Your task to perform on an android device: Search for pizza restaurants on Maps Image 0: 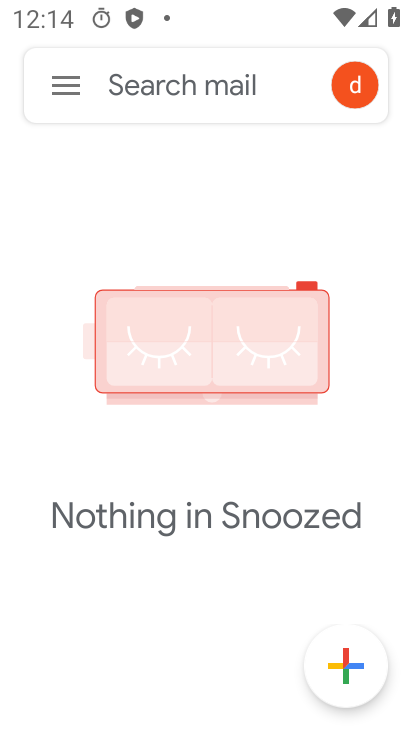
Step 0: press home button
Your task to perform on an android device: Search for pizza restaurants on Maps Image 1: 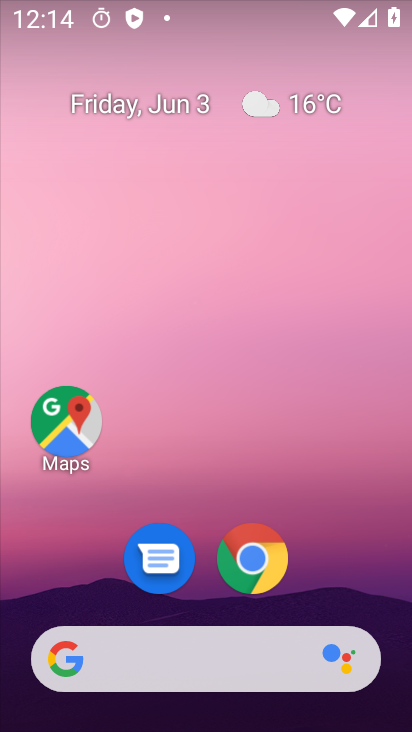
Step 1: drag from (364, 565) to (350, 260)
Your task to perform on an android device: Search for pizza restaurants on Maps Image 2: 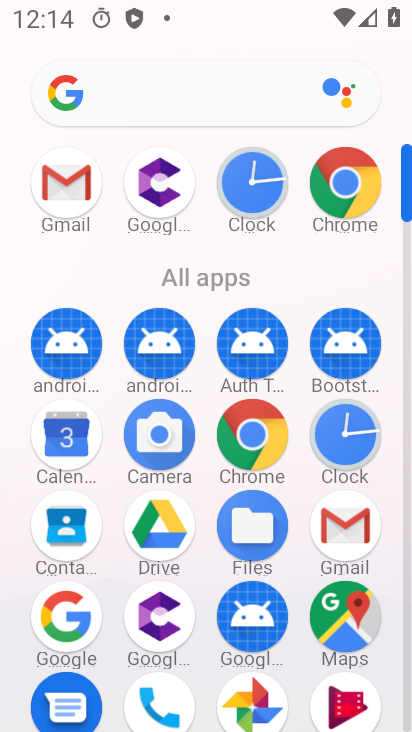
Step 2: click (354, 613)
Your task to perform on an android device: Search for pizza restaurants on Maps Image 3: 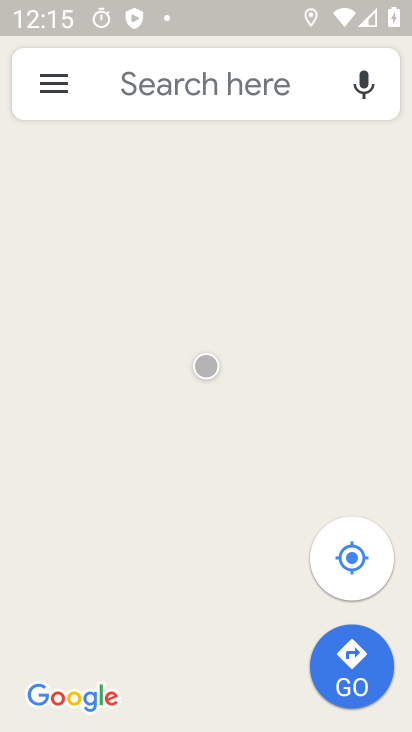
Step 3: click (255, 77)
Your task to perform on an android device: Search for pizza restaurants on Maps Image 4: 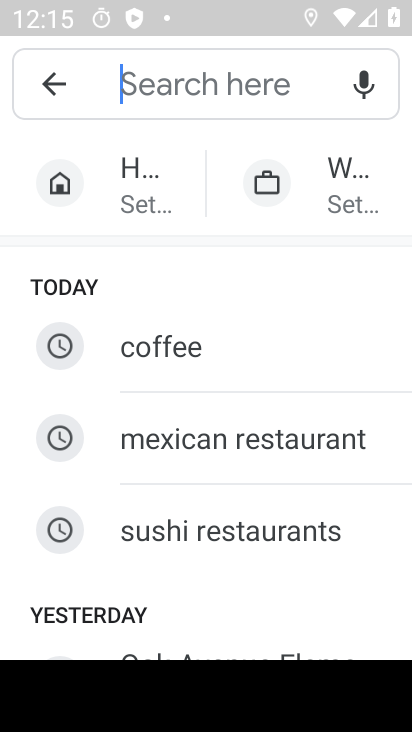
Step 4: type "pizzaa restautants"
Your task to perform on an android device: Search for pizza restaurants on Maps Image 5: 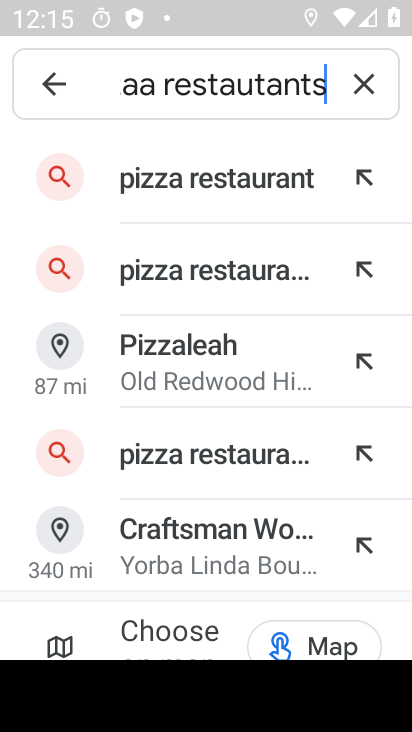
Step 5: click (318, 203)
Your task to perform on an android device: Search for pizza restaurants on Maps Image 6: 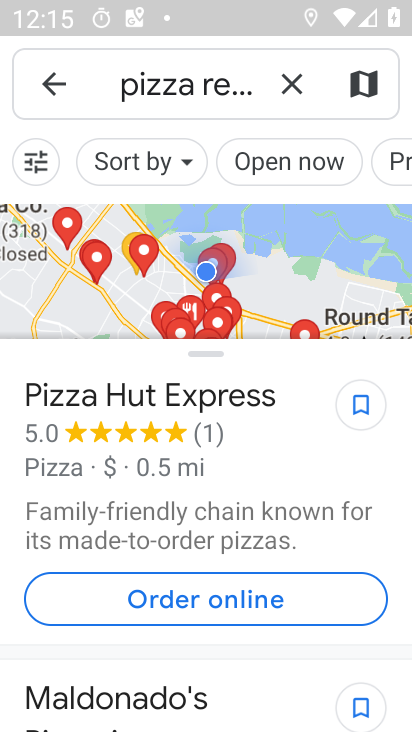
Step 6: task complete